Your task to perform on an android device: change the clock style Image 0: 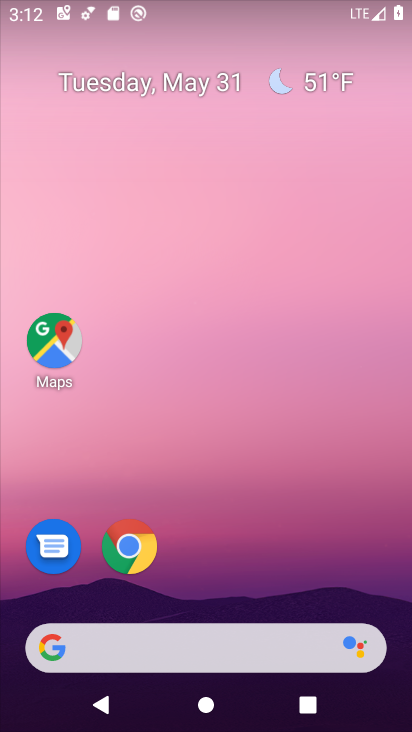
Step 0: drag from (266, 475) to (152, 18)
Your task to perform on an android device: change the clock style Image 1: 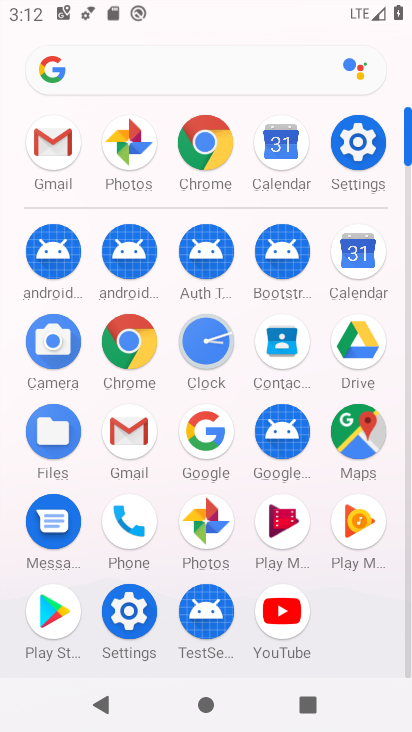
Step 1: click (223, 336)
Your task to perform on an android device: change the clock style Image 2: 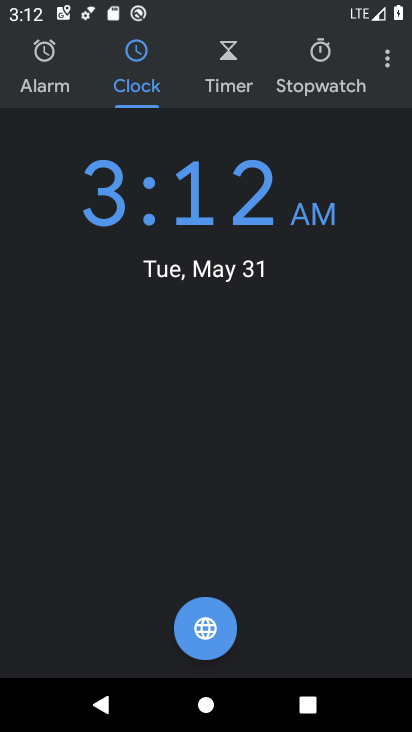
Step 2: click (383, 60)
Your task to perform on an android device: change the clock style Image 3: 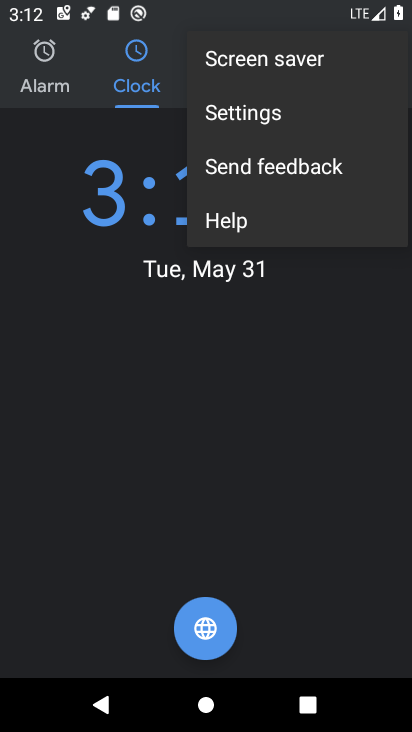
Step 3: click (267, 108)
Your task to perform on an android device: change the clock style Image 4: 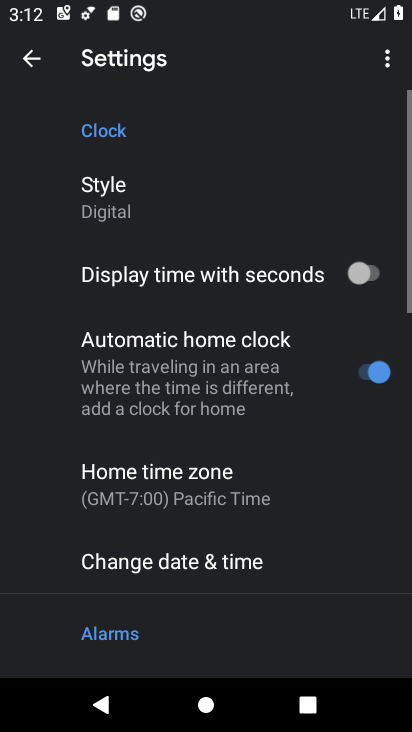
Step 4: click (154, 211)
Your task to perform on an android device: change the clock style Image 5: 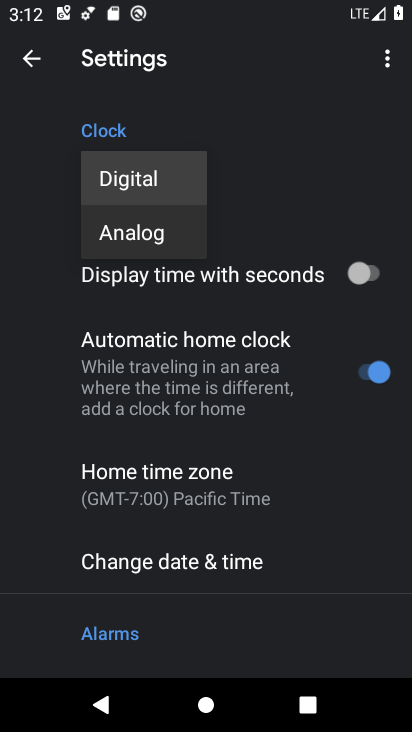
Step 5: click (158, 219)
Your task to perform on an android device: change the clock style Image 6: 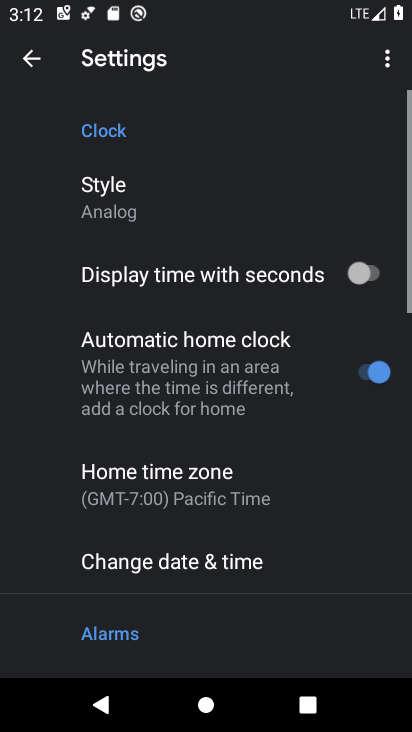
Step 6: task complete